Your task to perform on an android device: change your default location settings in chrome Image 0: 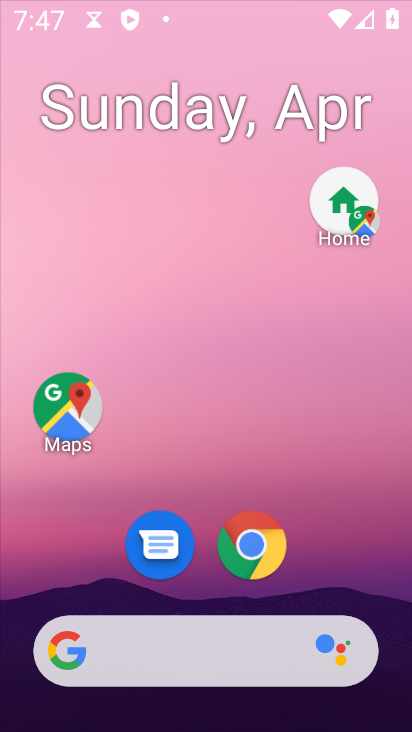
Step 0: click (284, 173)
Your task to perform on an android device: change your default location settings in chrome Image 1: 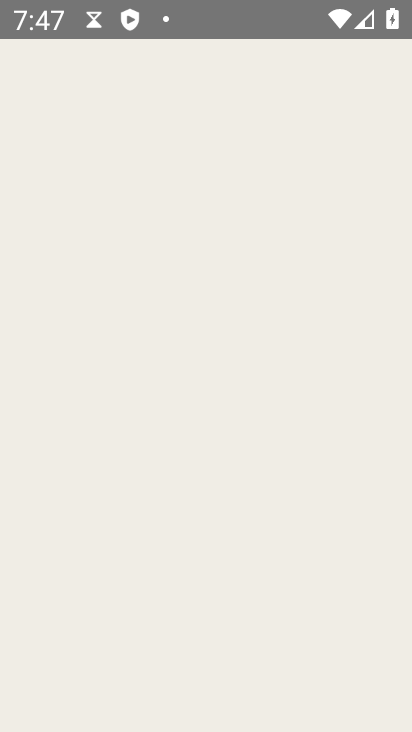
Step 1: press home button
Your task to perform on an android device: change your default location settings in chrome Image 2: 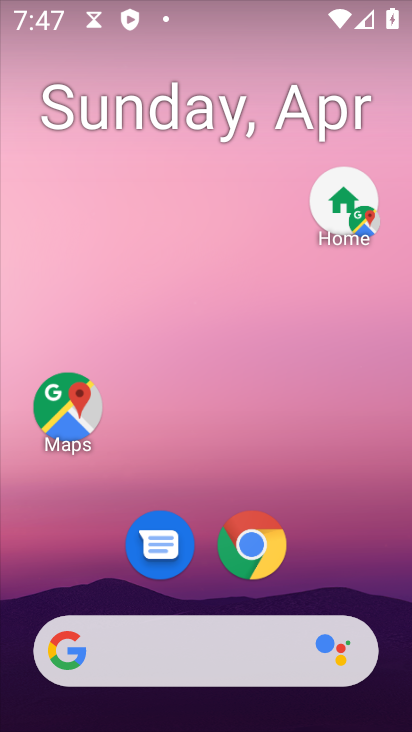
Step 2: drag from (308, 582) to (313, 196)
Your task to perform on an android device: change your default location settings in chrome Image 3: 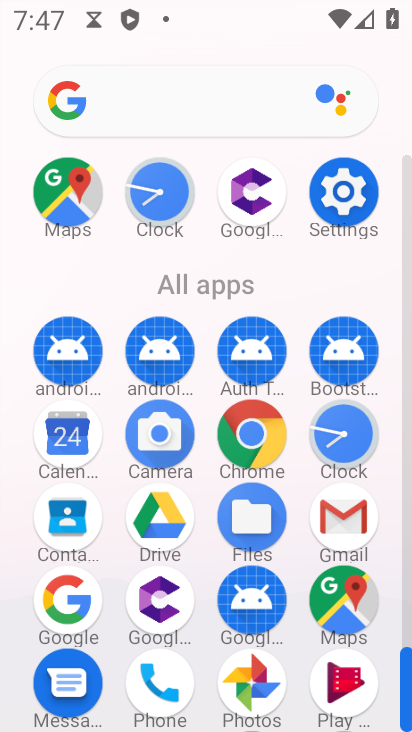
Step 3: click (243, 438)
Your task to perform on an android device: change your default location settings in chrome Image 4: 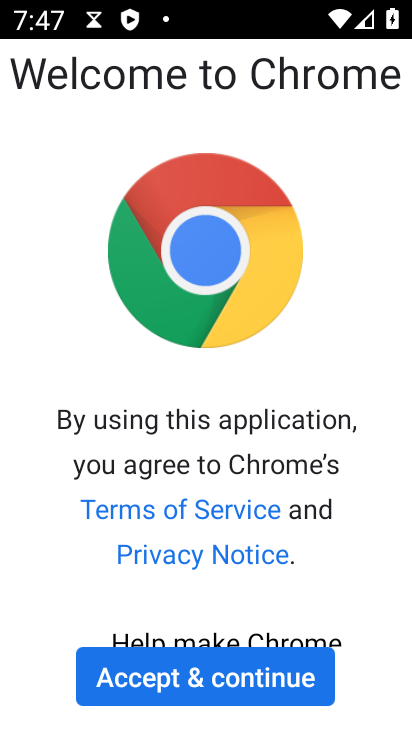
Step 4: click (243, 682)
Your task to perform on an android device: change your default location settings in chrome Image 5: 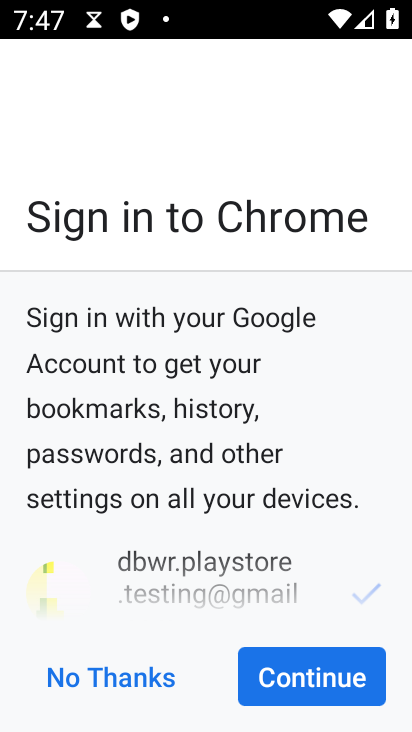
Step 5: click (281, 682)
Your task to perform on an android device: change your default location settings in chrome Image 6: 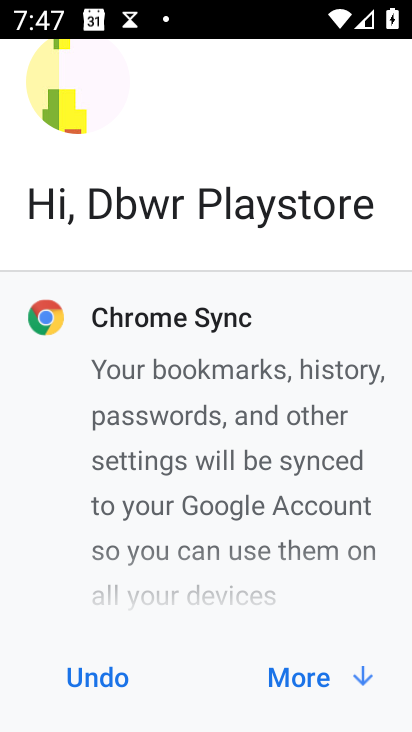
Step 6: click (316, 686)
Your task to perform on an android device: change your default location settings in chrome Image 7: 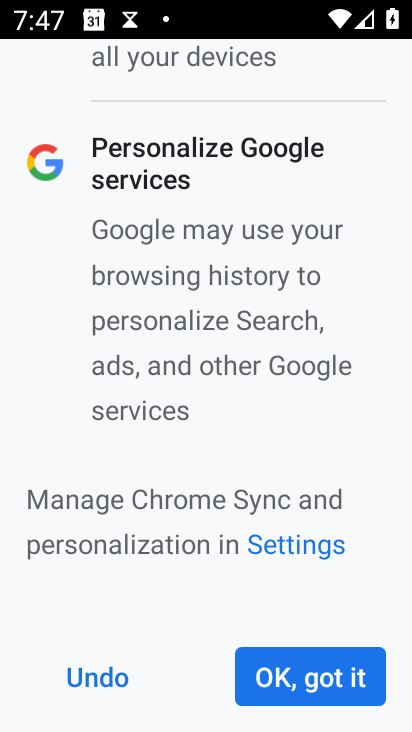
Step 7: click (334, 653)
Your task to perform on an android device: change your default location settings in chrome Image 8: 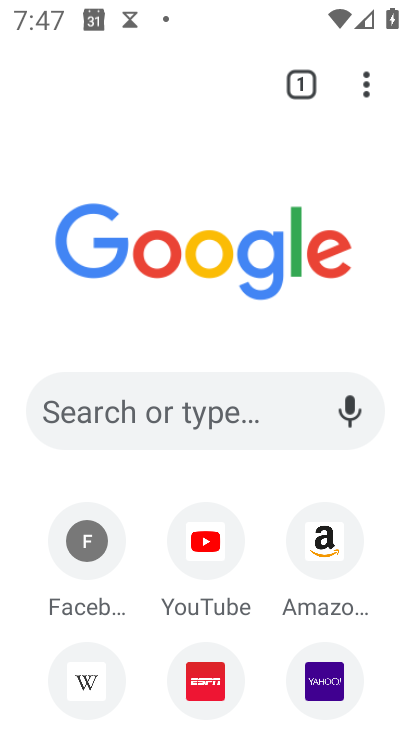
Step 8: click (366, 74)
Your task to perform on an android device: change your default location settings in chrome Image 9: 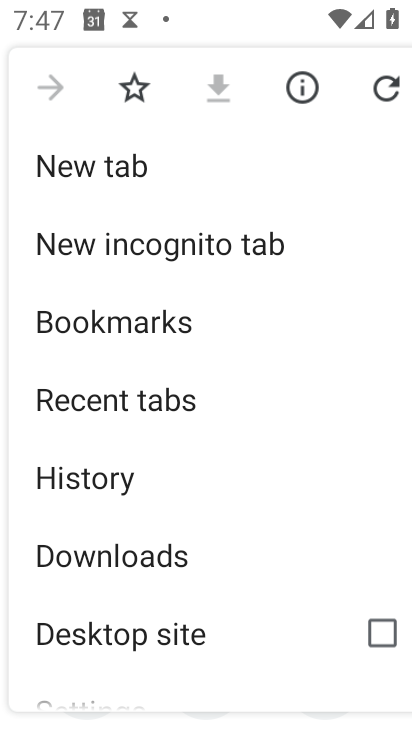
Step 9: click (235, 590)
Your task to perform on an android device: change your default location settings in chrome Image 10: 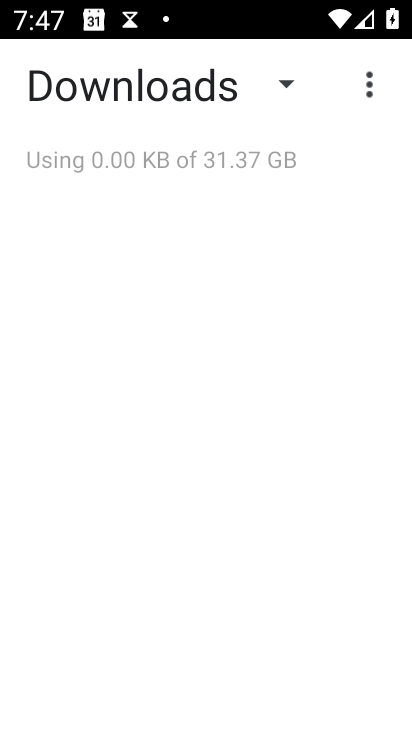
Step 10: click (267, 140)
Your task to perform on an android device: change your default location settings in chrome Image 11: 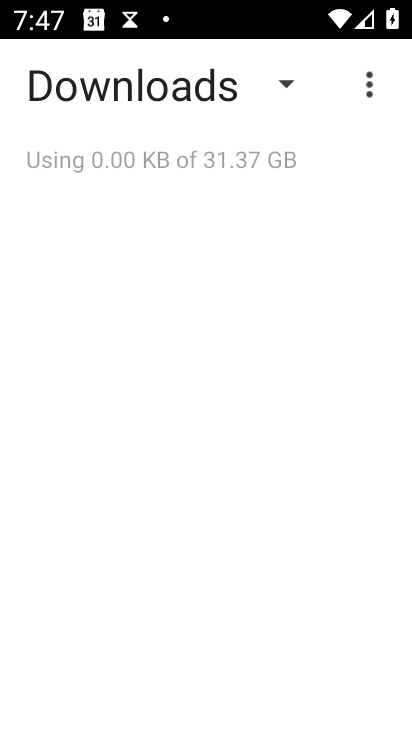
Step 11: press back button
Your task to perform on an android device: change your default location settings in chrome Image 12: 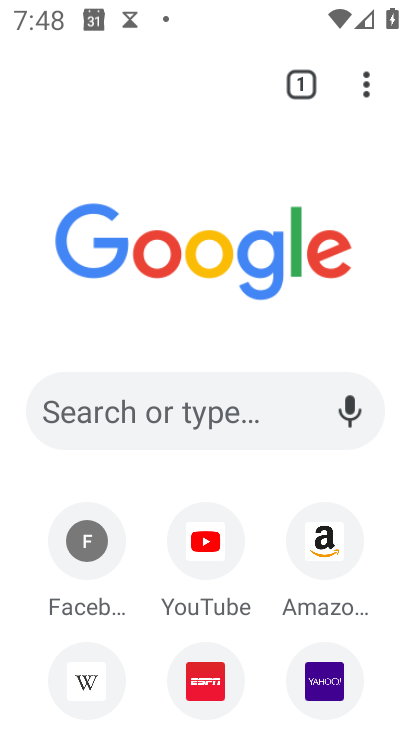
Step 12: click (356, 84)
Your task to perform on an android device: change your default location settings in chrome Image 13: 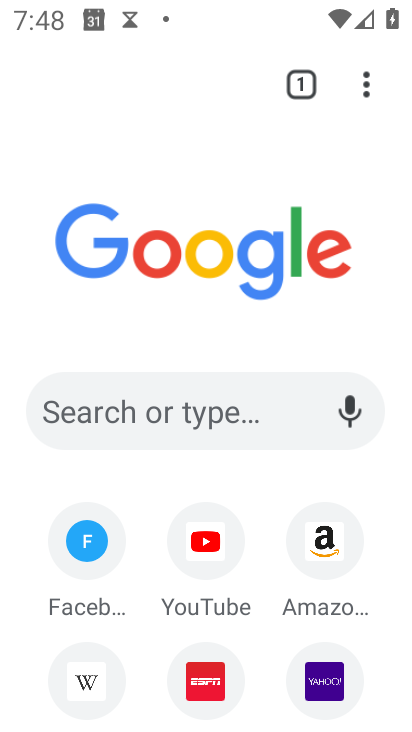
Step 13: click (356, 84)
Your task to perform on an android device: change your default location settings in chrome Image 14: 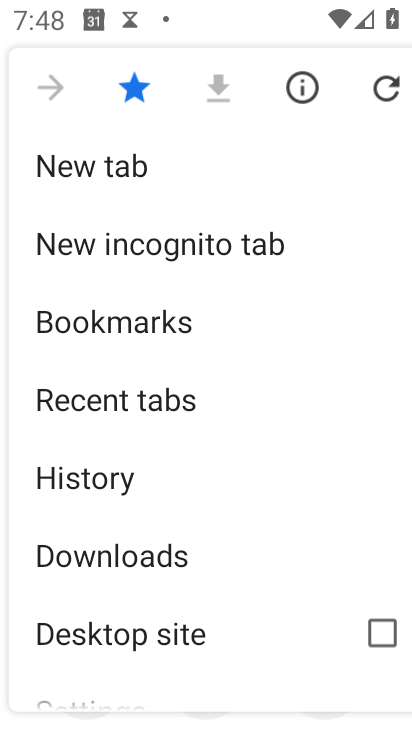
Step 14: click (255, 649)
Your task to perform on an android device: change your default location settings in chrome Image 15: 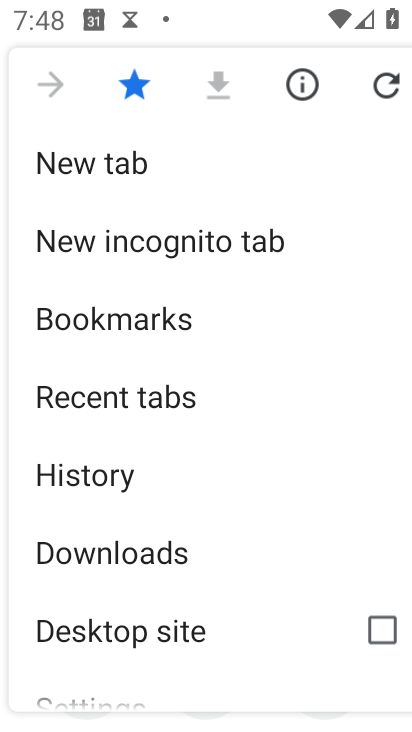
Step 15: click (254, 201)
Your task to perform on an android device: change your default location settings in chrome Image 16: 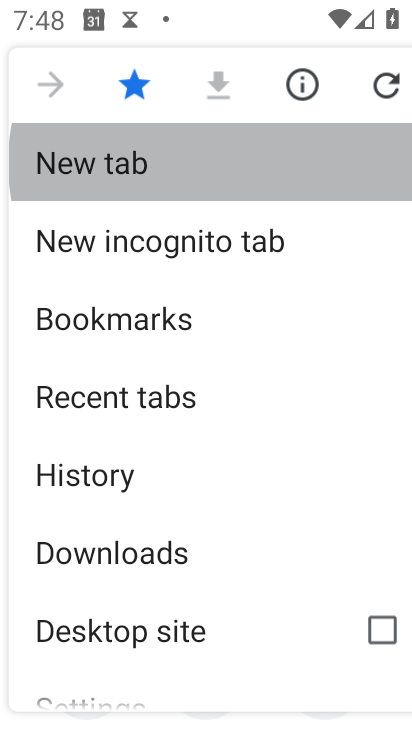
Step 16: drag from (250, 310) to (272, 143)
Your task to perform on an android device: change your default location settings in chrome Image 17: 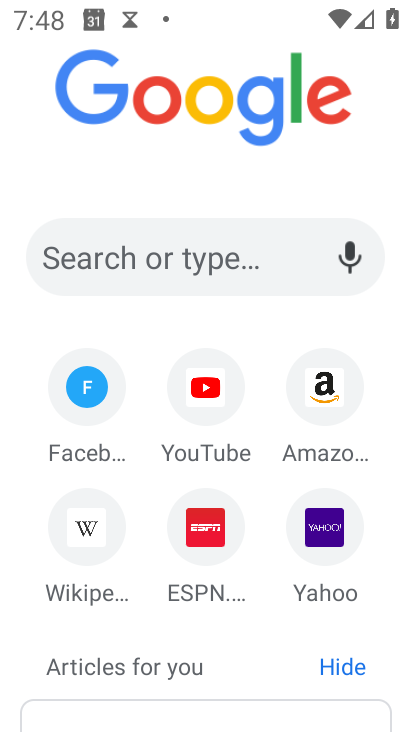
Step 17: drag from (248, 157) to (236, 202)
Your task to perform on an android device: change your default location settings in chrome Image 18: 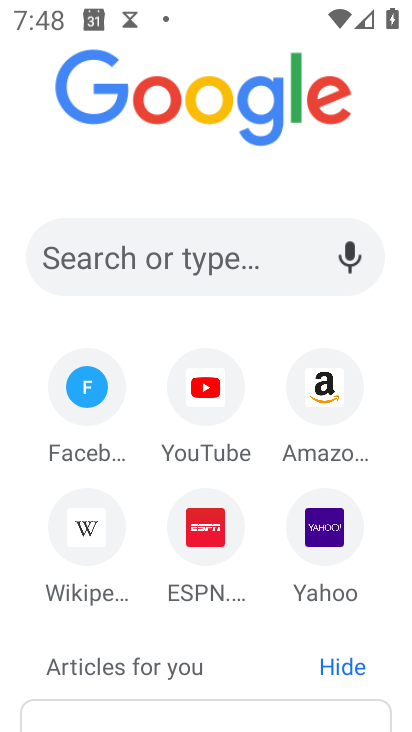
Step 18: click (170, 583)
Your task to perform on an android device: change your default location settings in chrome Image 19: 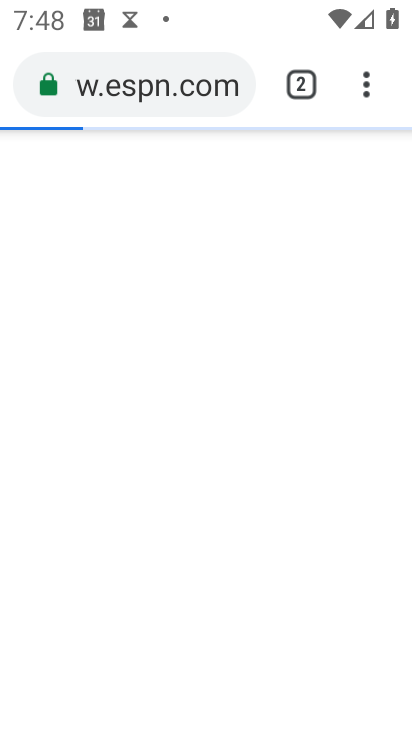
Step 19: click (358, 72)
Your task to perform on an android device: change your default location settings in chrome Image 20: 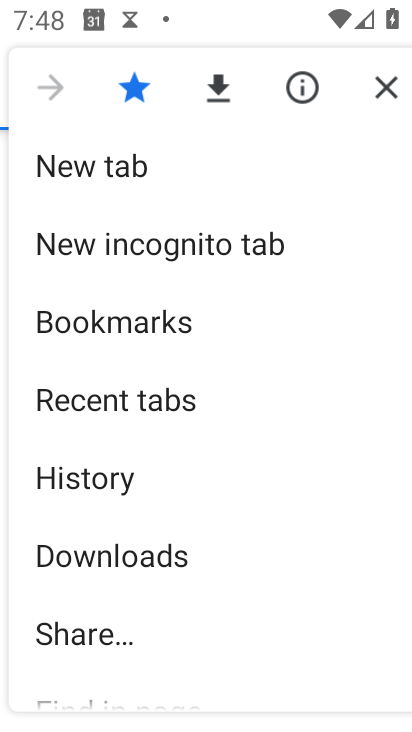
Step 20: drag from (180, 681) to (198, 64)
Your task to perform on an android device: change your default location settings in chrome Image 21: 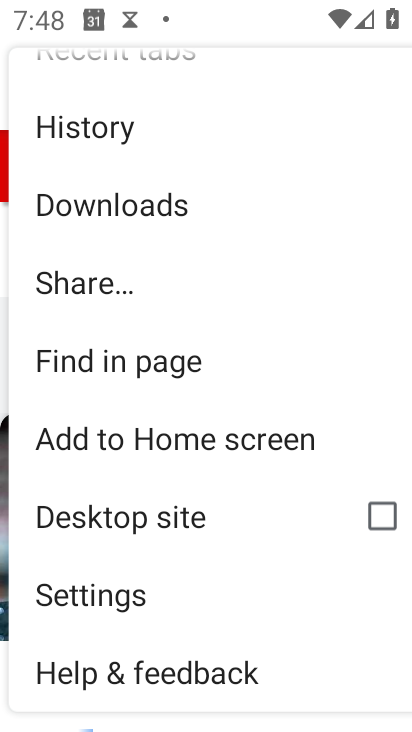
Step 21: click (176, 587)
Your task to perform on an android device: change your default location settings in chrome Image 22: 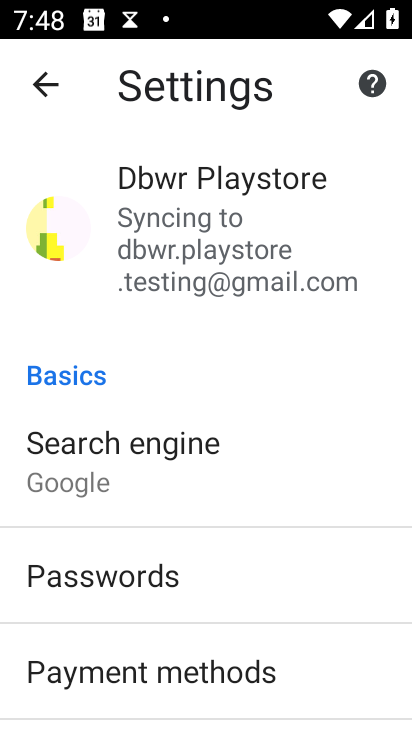
Step 22: drag from (181, 601) to (267, 98)
Your task to perform on an android device: change your default location settings in chrome Image 23: 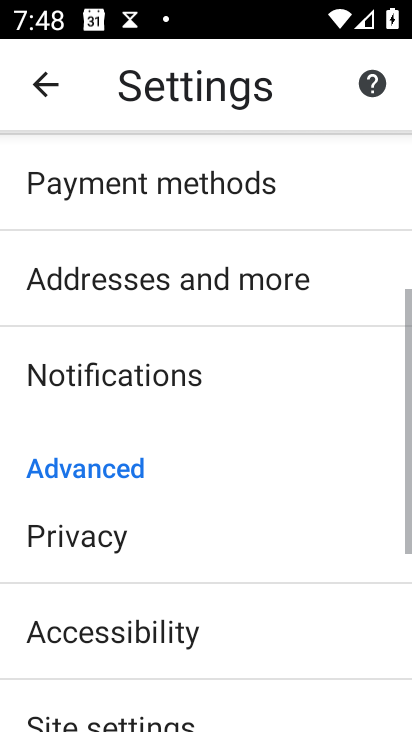
Step 23: drag from (152, 649) to (235, 154)
Your task to perform on an android device: change your default location settings in chrome Image 24: 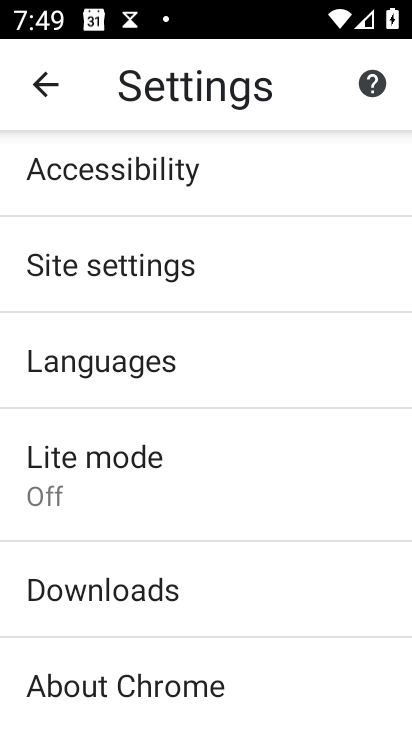
Step 24: click (125, 253)
Your task to perform on an android device: change your default location settings in chrome Image 25: 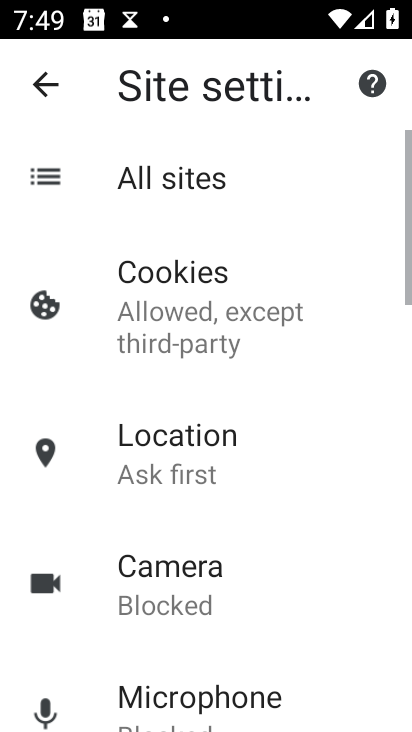
Step 25: click (137, 445)
Your task to perform on an android device: change your default location settings in chrome Image 26: 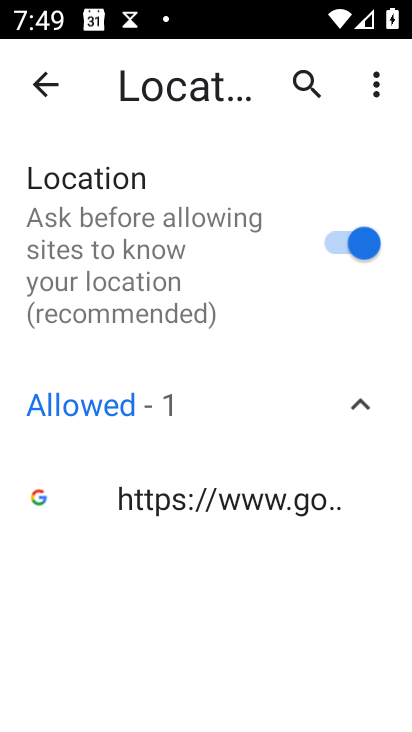
Step 26: click (342, 227)
Your task to perform on an android device: change your default location settings in chrome Image 27: 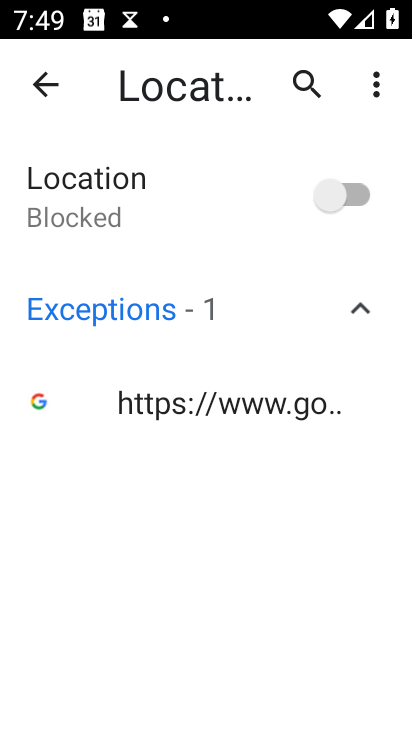
Step 27: task complete